Your task to perform on an android device: set the stopwatch Image 0: 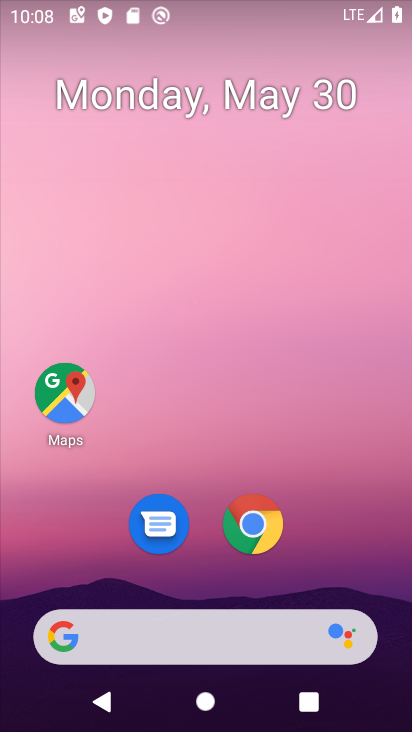
Step 0: drag from (309, 530) to (339, 17)
Your task to perform on an android device: set the stopwatch Image 1: 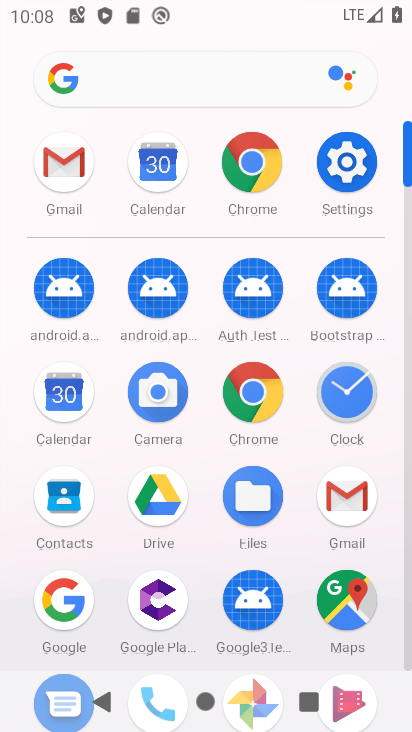
Step 1: click (336, 386)
Your task to perform on an android device: set the stopwatch Image 2: 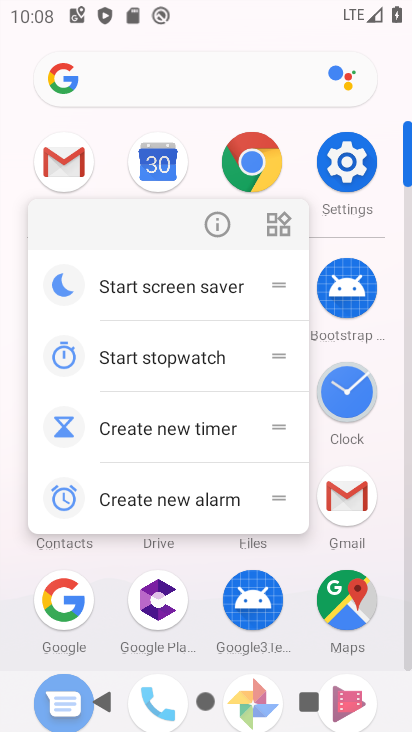
Step 2: click (337, 383)
Your task to perform on an android device: set the stopwatch Image 3: 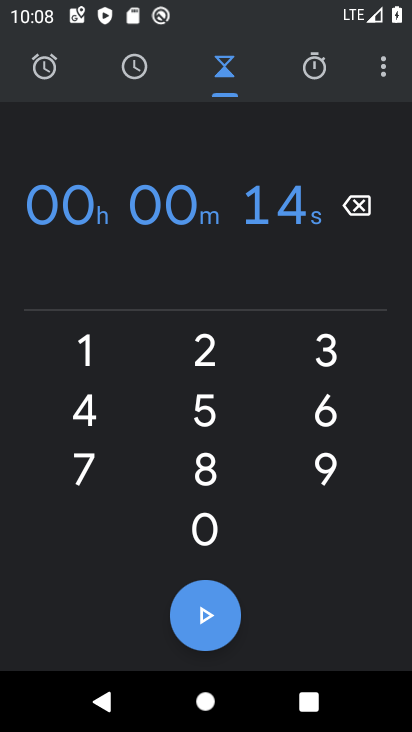
Step 3: click (315, 65)
Your task to perform on an android device: set the stopwatch Image 4: 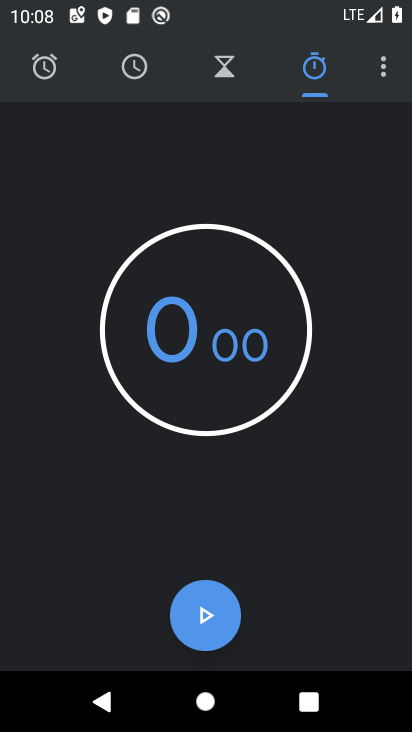
Step 4: task complete